Your task to perform on an android device: set an alarm Image 0: 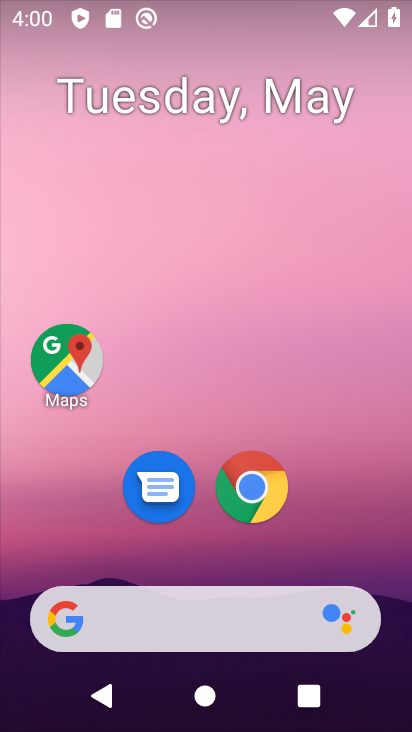
Step 0: drag from (336, 478) to (284, 11)
Your task to perform on an android device: set an alarm Image 1: 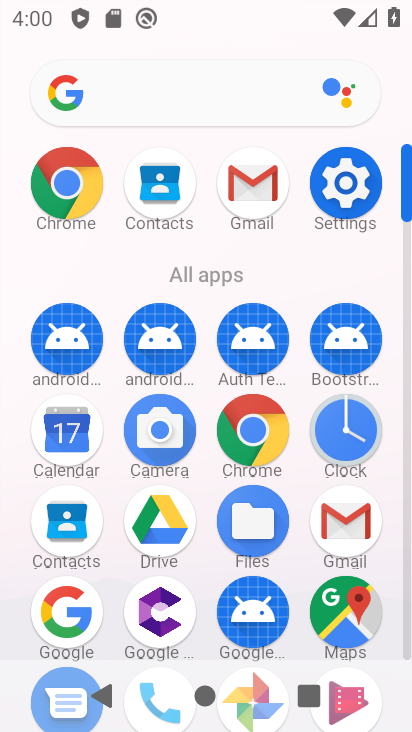
Step 1: click (330, 437)
Your task to perform on an android device: set an alarm Image 2: 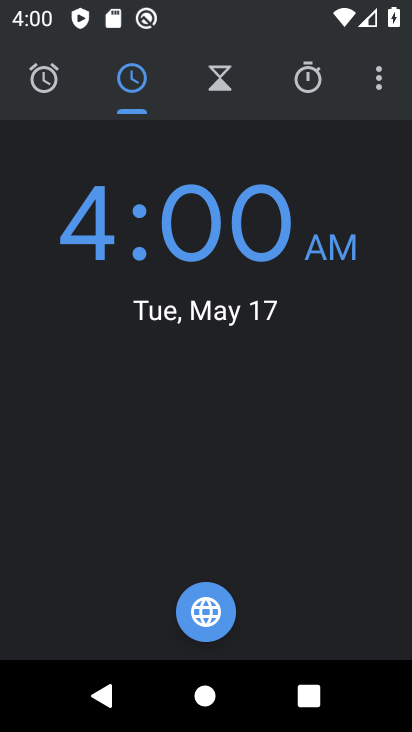
Step 2: click (46, 71)
Your task to perform on an android device: set an alarm Image 3: 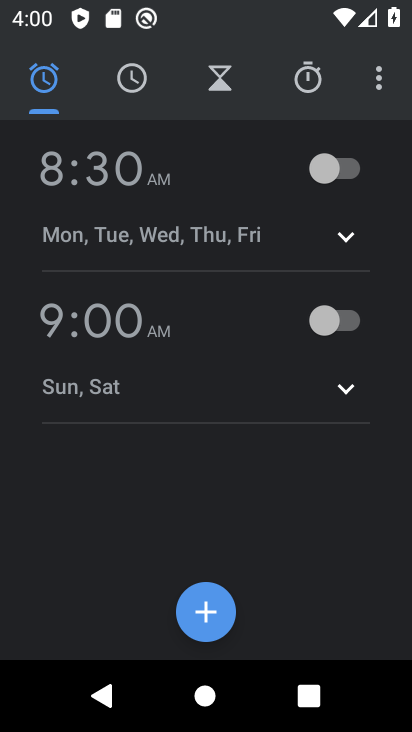
Step 3: click (202, 592)
Your task to perform on an android device: set an alarm Image 4: 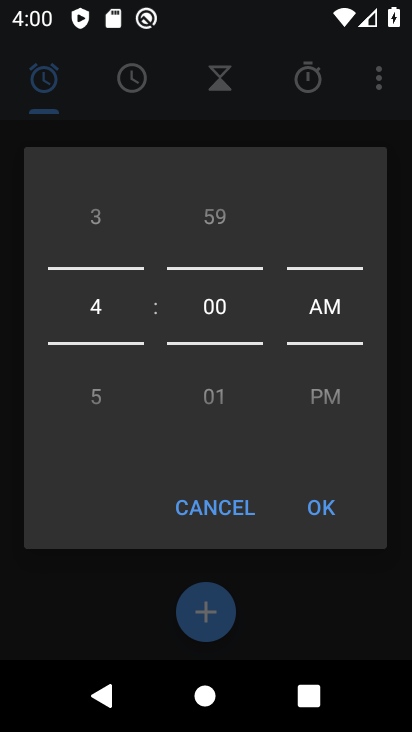
Step 4: click (322, 506)
Your task to perform on an android device: set an alarm Image 5: 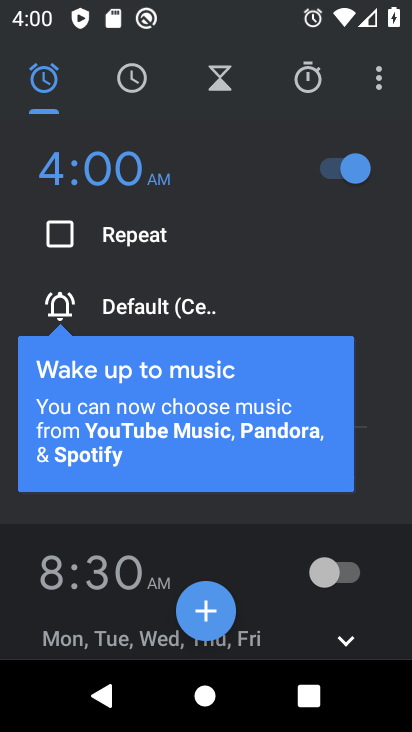
Step 5: task complete